Your task to perform on an android device: Go to Google Image 0: 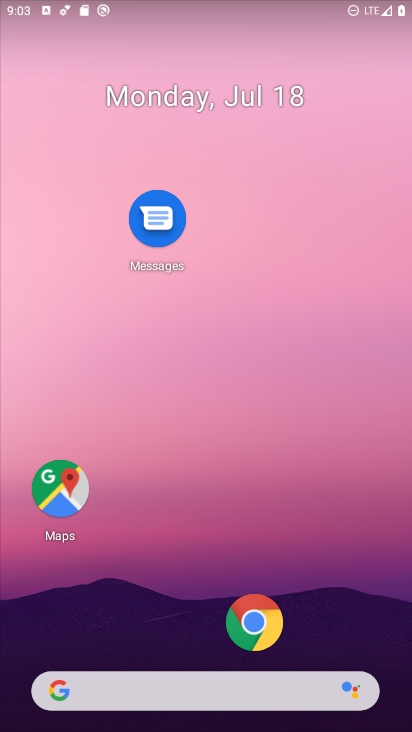
Step 0: drag from (176, 631) to (219, 166)
Your task to perform on an android device: Go to Google Image 1: 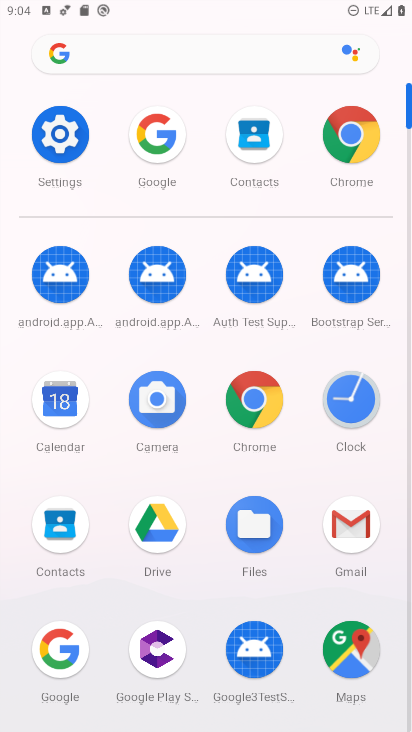
Step 1: click (73, 656)
Your task to perform on an android device: Go to Google Image 2: 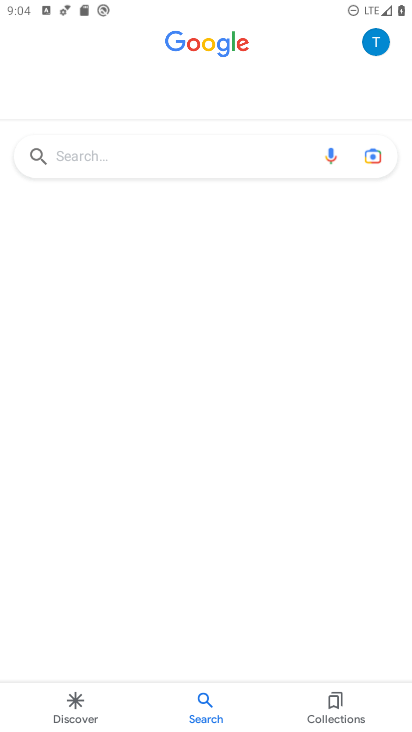
Step 2: task complete